Your task to perform on an android device: Open calendar and show me the second week of next month Image 0: 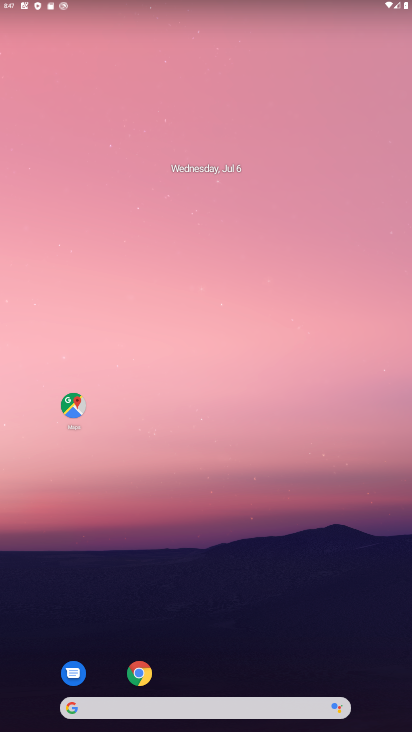
Step 0: click (278, 194)
Your task to perform on an android device: Open calendar and show me the second week of next month Image 1: 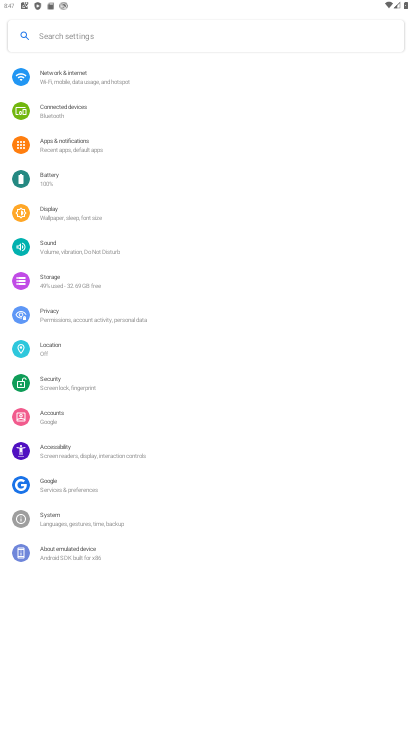
Step 1: press home button
Your task to perform on an android device: Open calendar and show me the second week of next month Image 2: 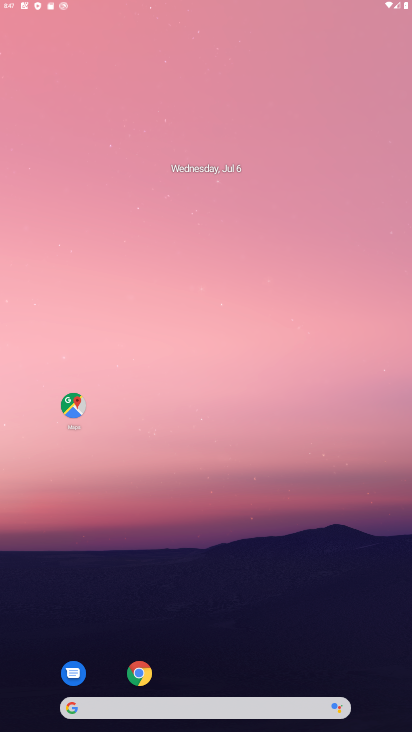
Step 2: drag from (153, 609) to (161, 175)
Your task to perform on an android device: Open calendar and show me the second week of next month Image 3: 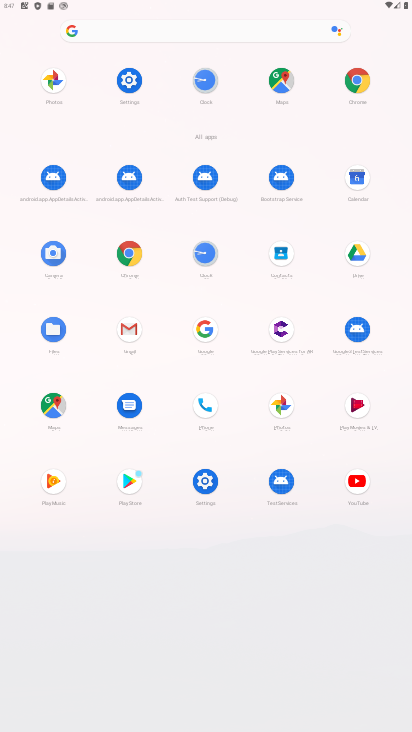
Step 3: click (341, 171)
Your task to perform on an android device: Open calendar and show me the second week of next month Image 4: 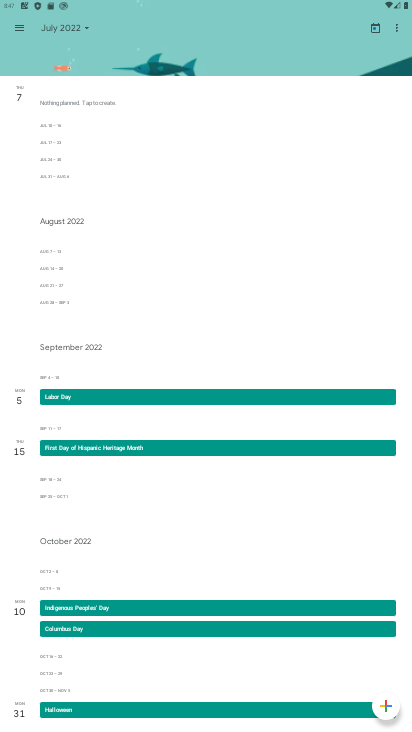
Step 4: click (22, 31)
Your task to perform on an android device: Open calendar and show me the second week of next month Image 5: 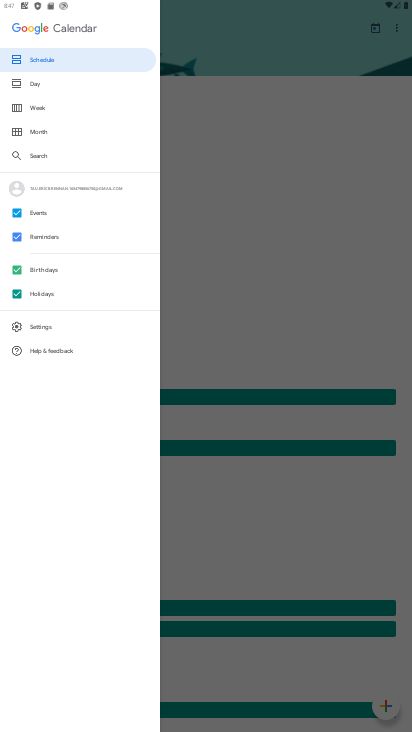
Step 5: click (35, 130)
Your task to perform on an android device: Open calendar and show me the second week of next month Image 6: 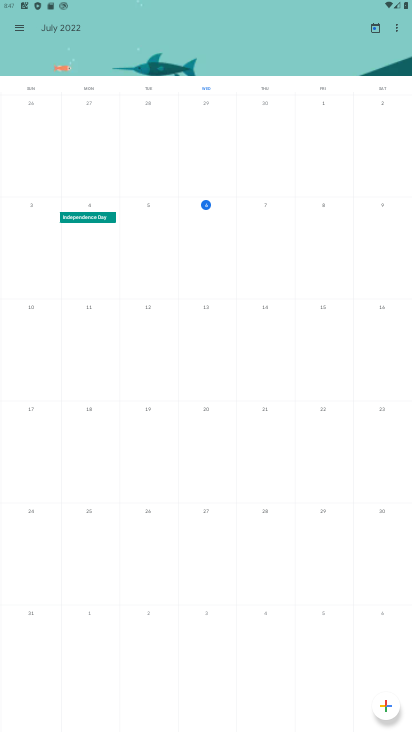
Step 6: task complete